Your task to perform on an android device: Open privacy settings Image 0: 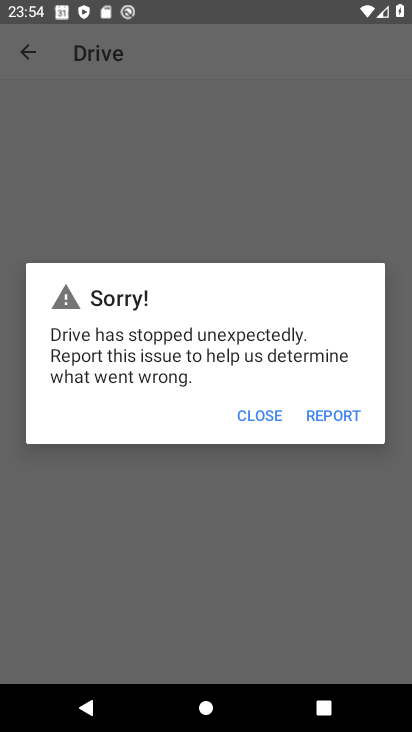
Step 0: press home button
Your task to perform on an android device: Open privacy settings Image 1: 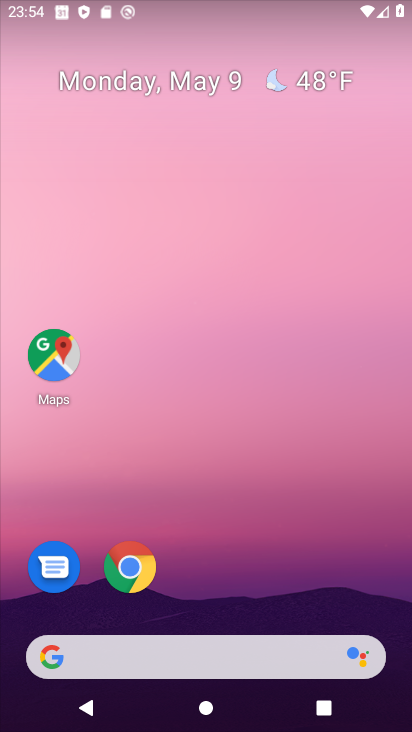
Step 1: drag from (256, 535) to (228, 94)
Your task to perform on an android device: Open privacy settings Image 2: 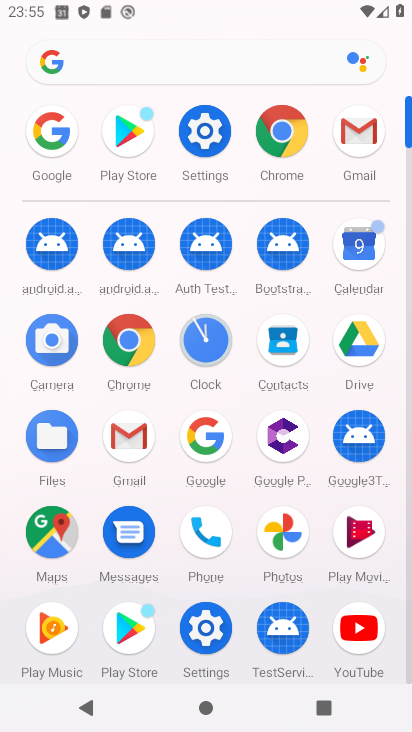
Step 2: click (206, 133)
Your task to perform on an android device: Open privacy settings Image 3: 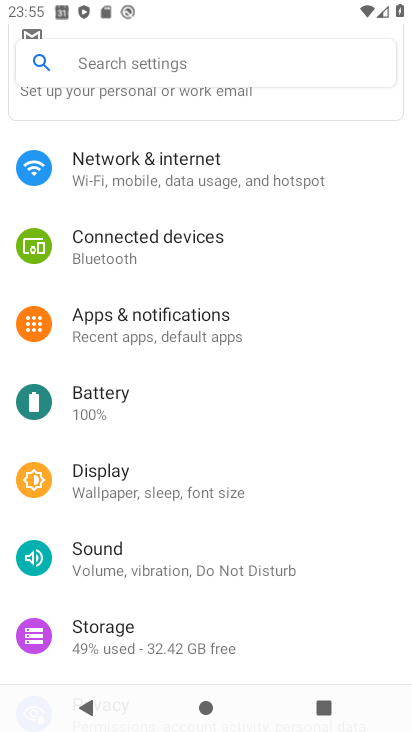
Step 3: drag from (153, 438) to (173, 334)
Your task to perform on an android device: Open privacy settings Image 4: 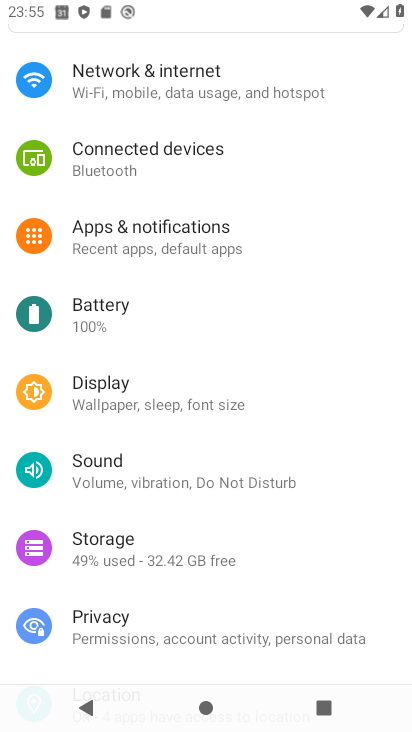
Step 4: drag from (151, 523) to (183, 420)
Your task to perform on an android device: Open privacy settings Image 5: 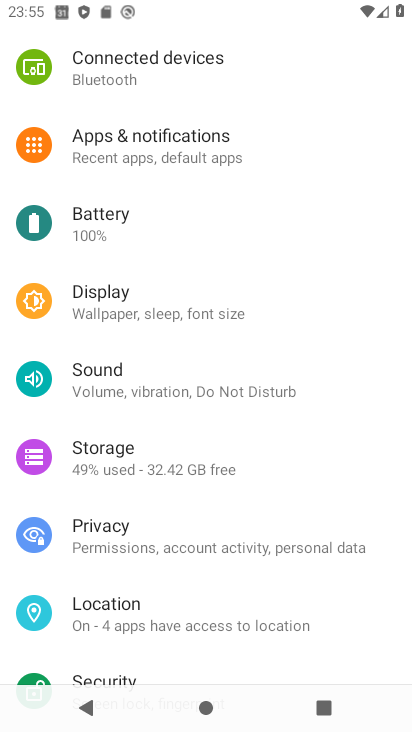
Step 5: click (102, 526)
Your task to perform on an android device: Open privacy settings Image 6: 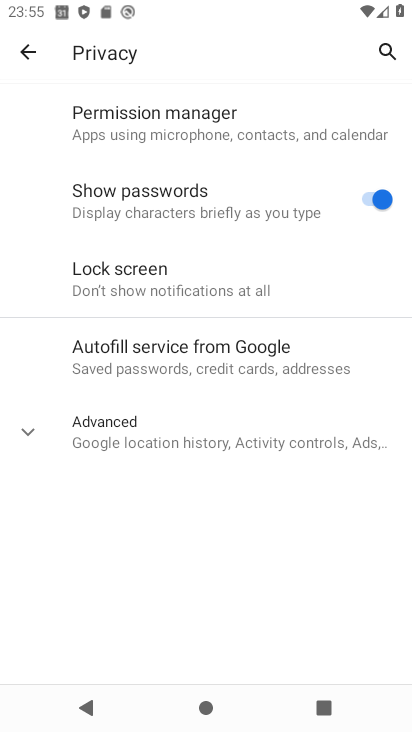
Step 6: task complete